Your task to perform on an android device: Is it going to rain this weekend? Image 0: 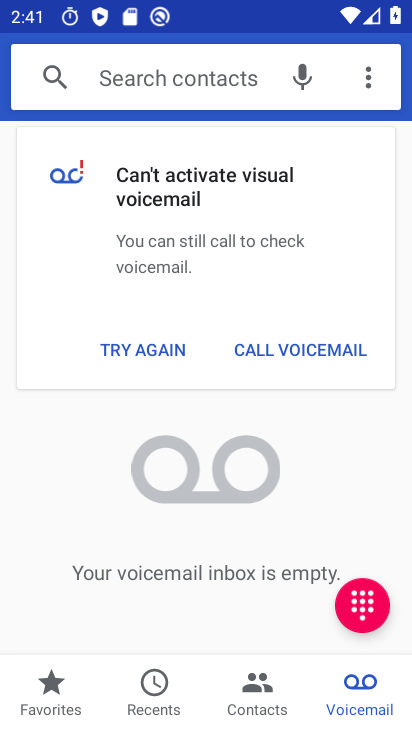
Step 0: press home button
Your task to perform on an android device: Is it going to rain this weekend? Image 1: 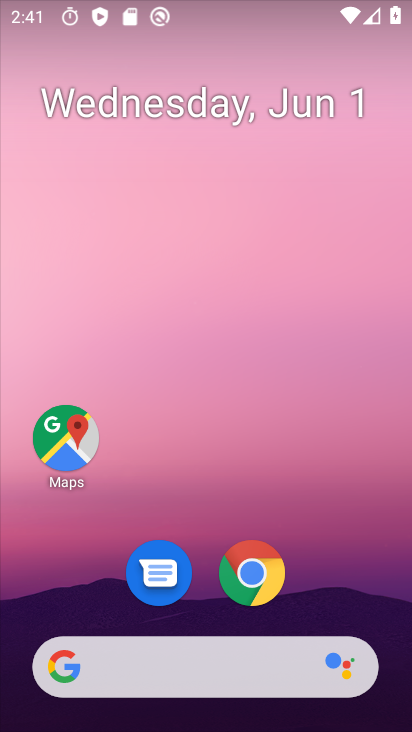
Step 1: drag from (185, 618) to (224, 172)
Your task to perform on an android device: Is it going to rain this weekend? Image 2: 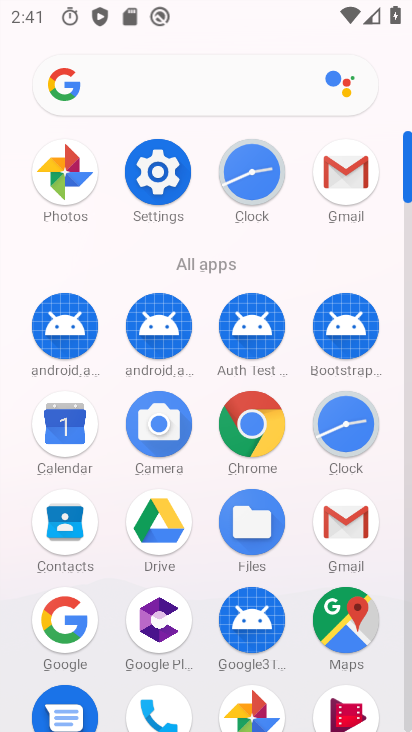
Step 2: click (74, 625)
Your task to perform on an android device: Is it going to rain this weekend? Image 3: 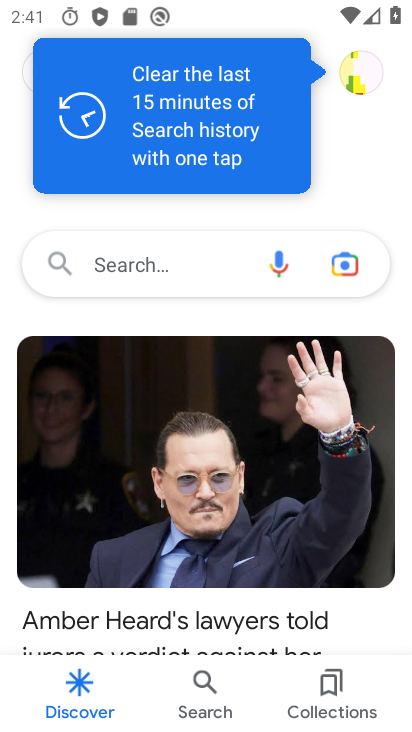
Step 3: click (124, 264)
Your task to perform on an android device: Is it going to rain this weekend? Image 4: 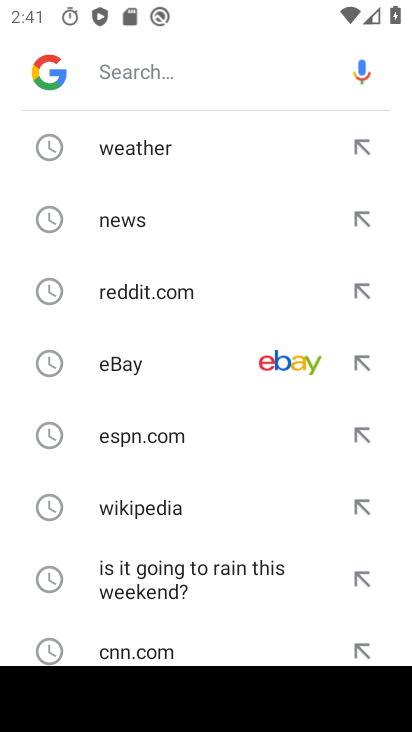
Step 4: click (138, 154)
Your task to perform on an android device: Is it going to rain this weekend? Image 5: 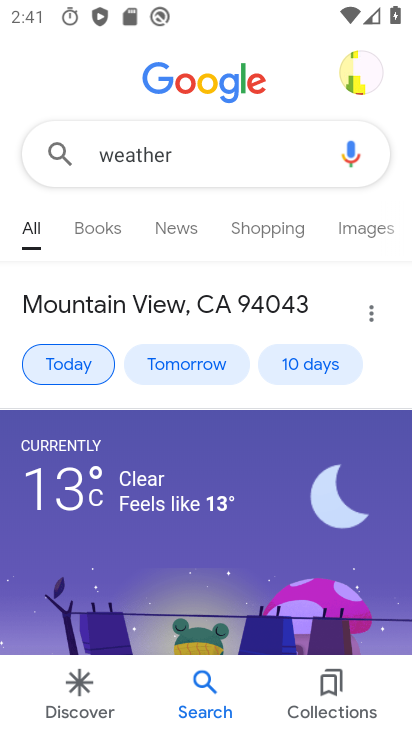
Step 5: click (288, 364)
Your task to perform on an android device: Is it going to rain this weekend? Image 6: 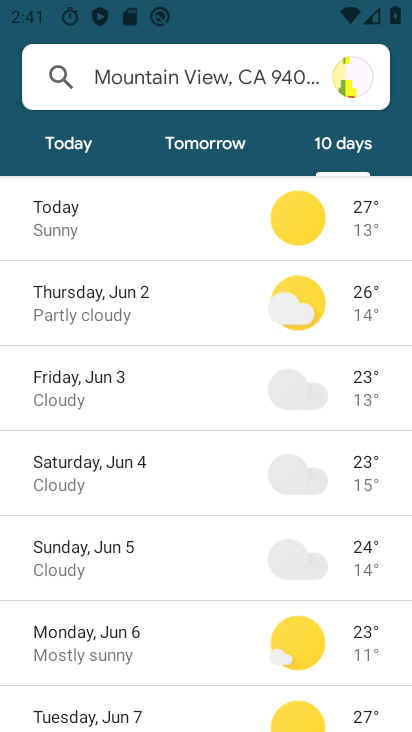
Step 6: task complete